Your task to perform on an android device: snooze an email in the gmail app Image 0: 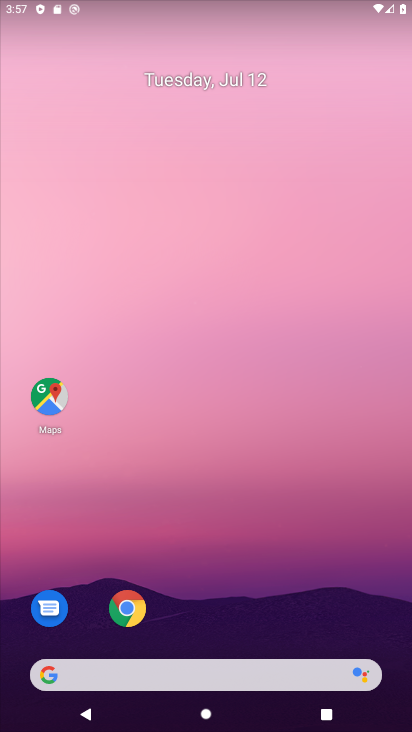
Step 0: drag from (173, 609) to (203, 4)
Your task to perform on an android device: snooze an email in the gmail app Image 1: 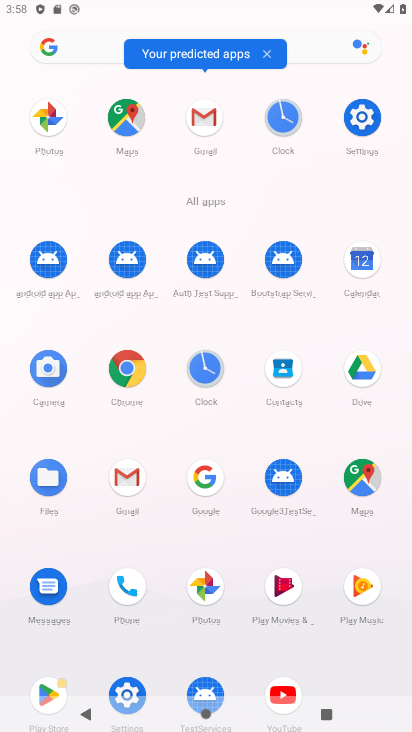
Step 1: click (204, 161)
Your task to perform on an android device: snooze an email in the gmail app Image 2: 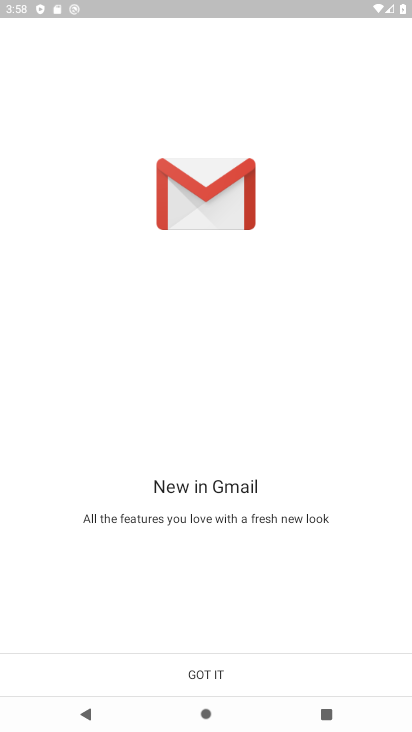
Step 2: click (155, 684)
Your task to perform on an android device: snooze an email in the gmail app Image 3: 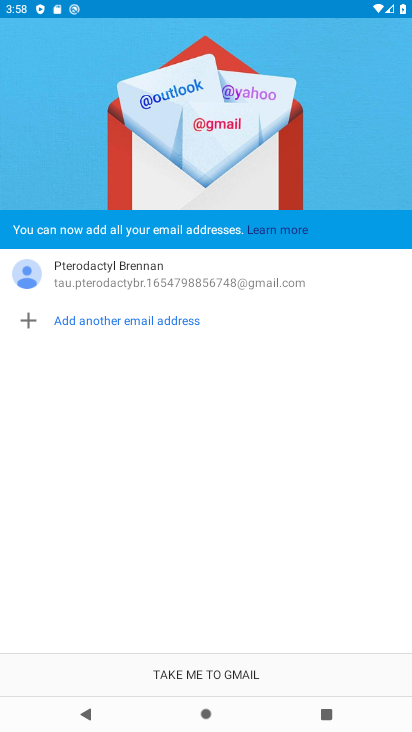
Step 3: click (143, 668)
Your task to perform on an android device: snooze an email in the gmail app Image 4: 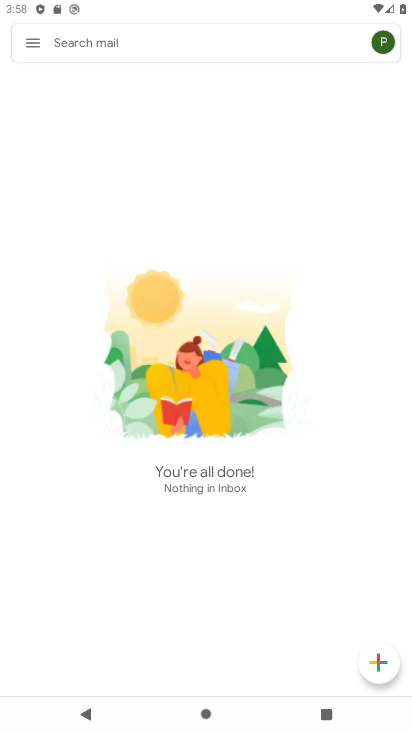
Step 4: click (32, 54)
Your task to perform on an android device: snooze an email in the gmail app Image 5: 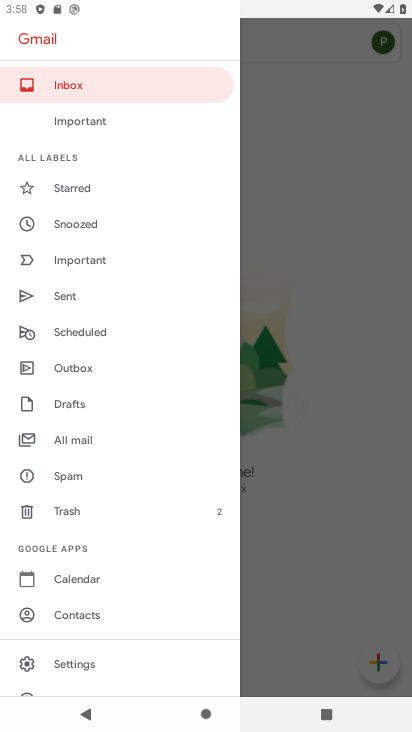
Step 5: click (90, 217)
Your task to perform on an android device: snooze an email in the gmail app Image 6: 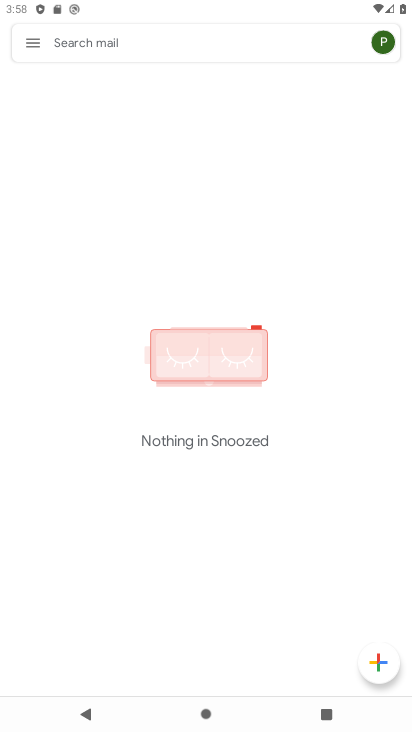
Step 6: task complete